Your task to perform on an android device: choose inbox layout in the gmail app Image 0: 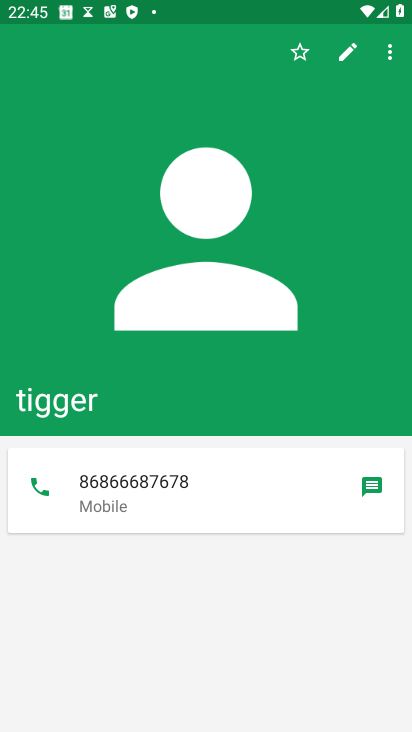
Step 0: press home button
Your task to perform on an android device: choose inbox layout in the gmail app Image 1: 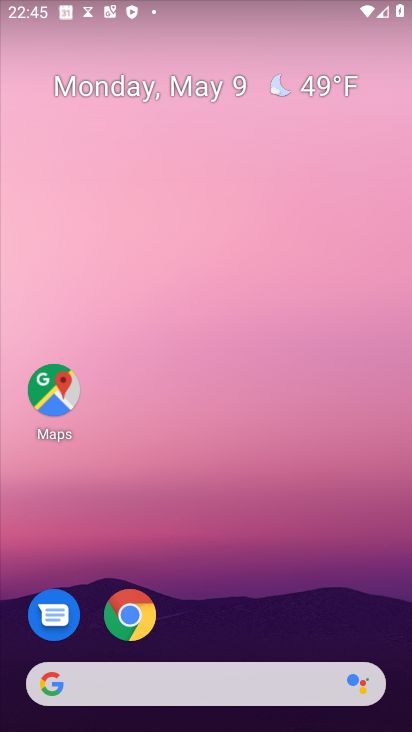
Step 1: drag from (202, 599) to (194, 79)
Your task to perform on an android device: choose inbox layout in the gmail app Image 2: 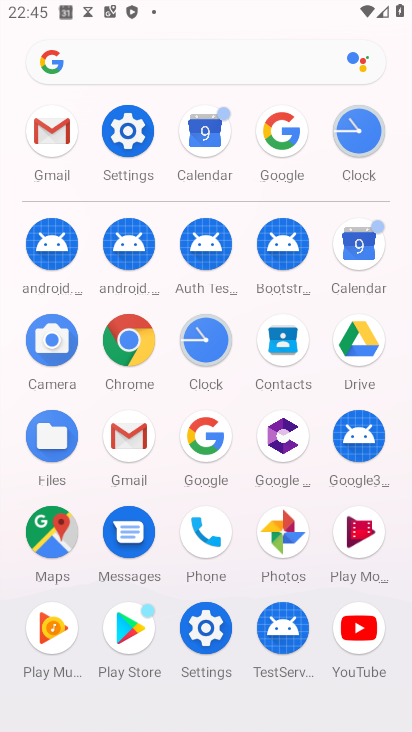
Step 2: click (63, 148)
Your task to perform on an android device: choose inbox layout in the gmail app Image 3: 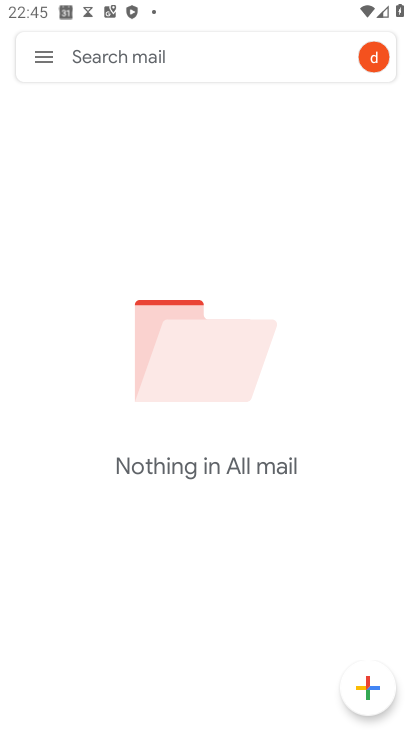
Step 3: click (41, 57)
Your task to perform on an android device: choose inbox layout in the gmail app Image 4: 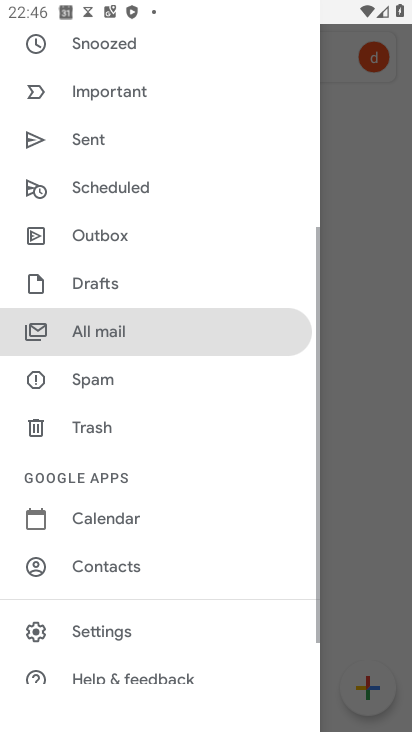
Step 4: drag from (139, 193) to (142, 558)
Your task to perform on an android device: choose inbox layout in the gmail app Image 5: 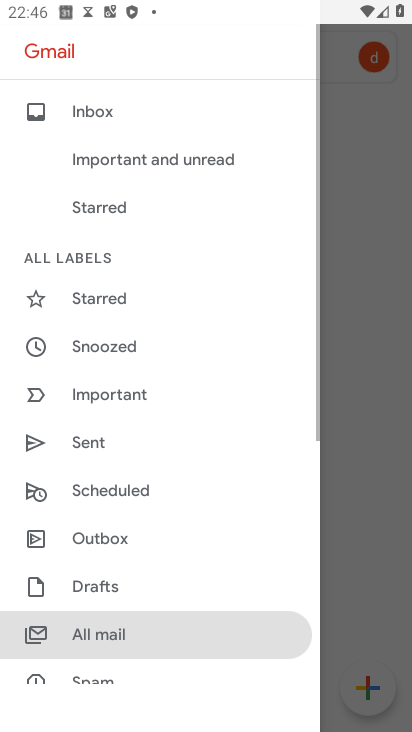
Step 5: click (79, 116)
Your task to perform on an android device: choose inbox layout in the gmail app Image 6: 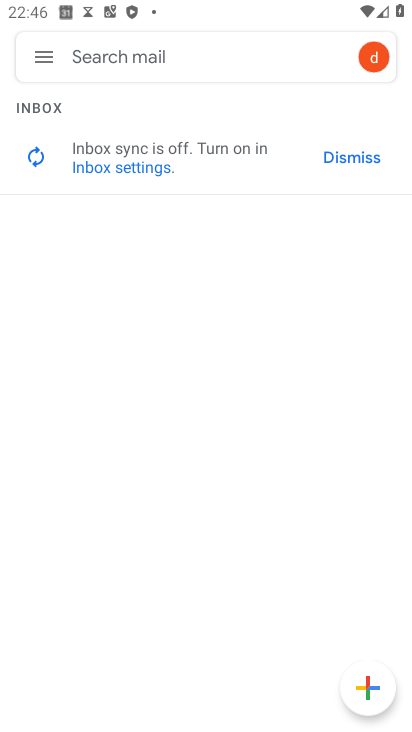
Step 6: task complete